Your task to perform on an android device: manage bookmarks in the chrome app Image 0: 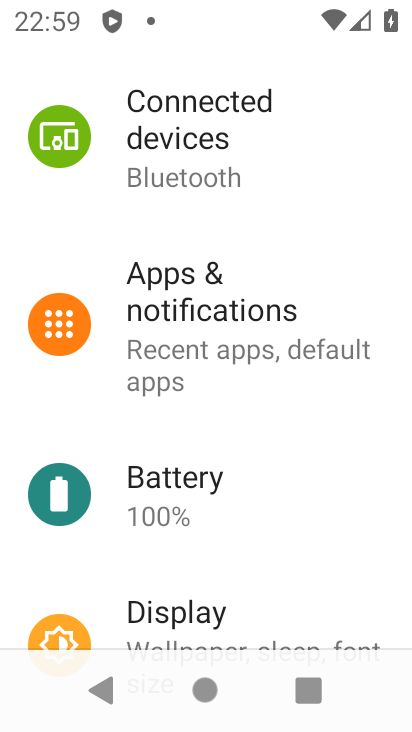
Step 0: drag from (250, 600) to (320, 723)
Your task to perform on an android device: manage bookmarks in the chrome app Image 1: 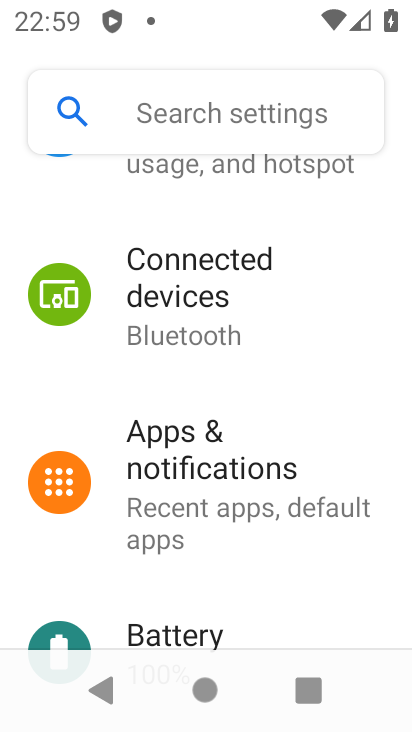
Step 1: press home button
Your task to perform on an android device: manage bookmarks in the chrome app Image 2: 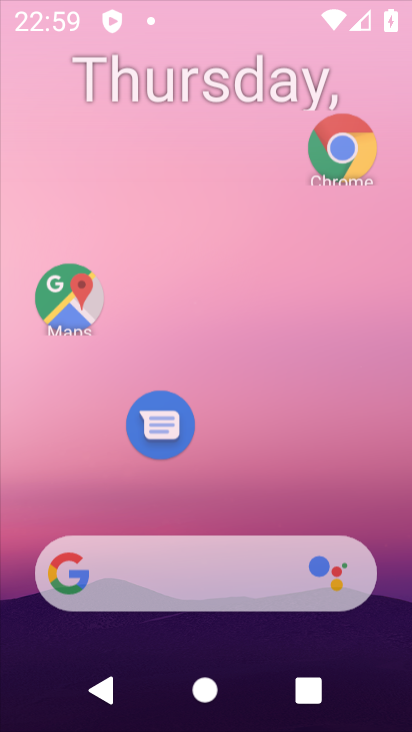
Step 2: drag from (202, 602) to (259, 129)
Your task to perform on an android device: manage bookmarks in the chrome app Image 3: 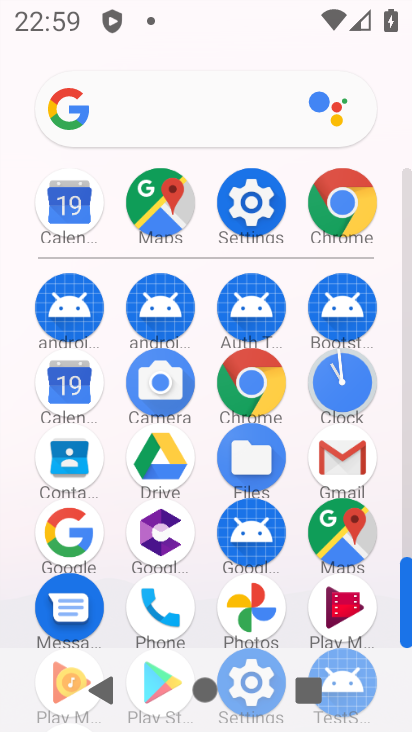
Step 3: click (248, 367)
Your task to perform on an android device: manage bookmarks in the chrome app Image 4: 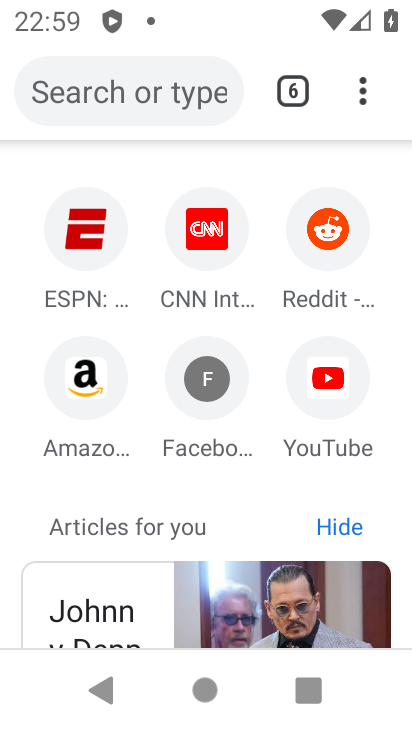
Step 4: click (370, 104)
Your task to perform on an android device: manage bookmarks in the chrome app Image 5: 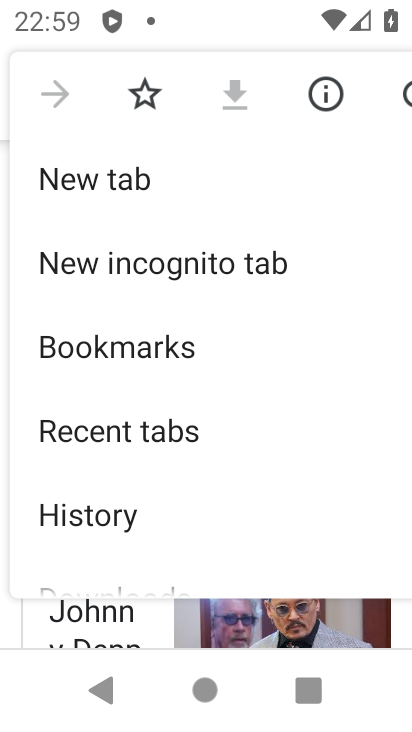
Step 5: drag from (189, 485) to (236, 135)
Your task to perform on an android device: manage bookmarks in the chrome app Image 6: 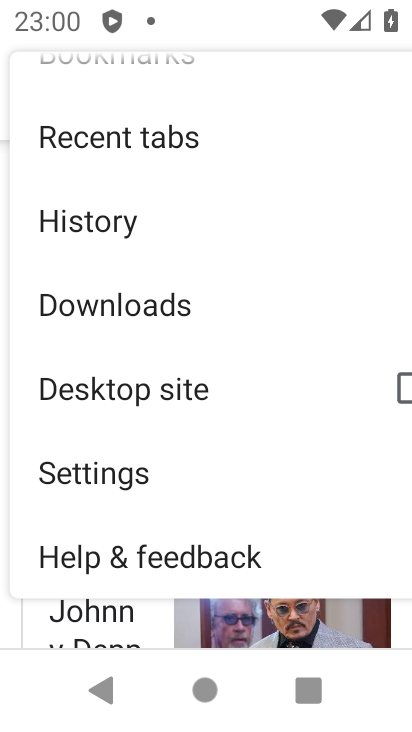
Step 6: drag from (196, 157) to (247, 544)
Your task to perform on an android device: manage bookmarks in the chrome app Image 7: 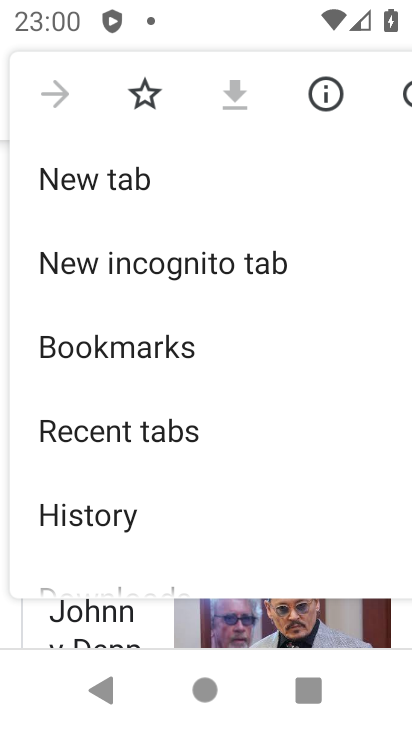
Step 7: click (157, 359)
Your task to perform on an android device: manage bookmarks in the chrome app Image 8: 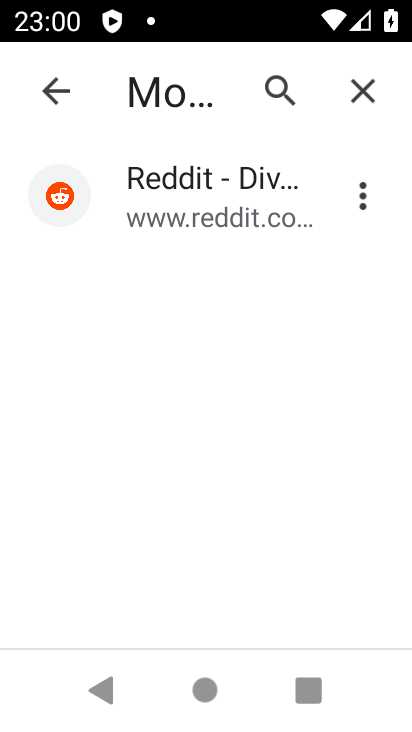
Step 8: drag from (248, 548) to (286, 115)
Your task to perform on an android device: manage bookmarks in the chrome app Image 9: 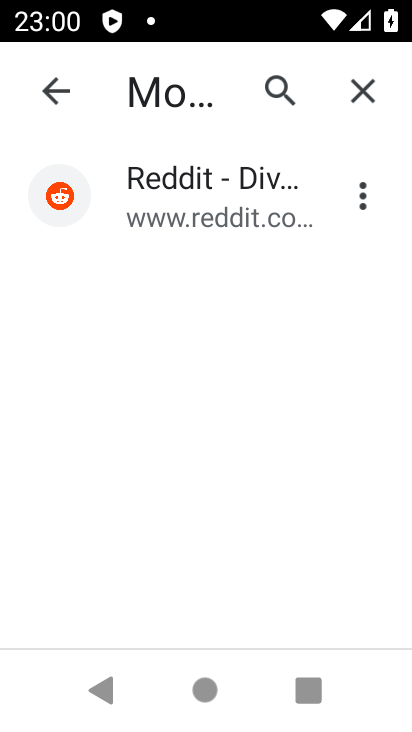
Step 9: drag from (211, 518) to (260, 194)
Your task to perform on an android device: manage bookmarks in the chrome app Image 10: 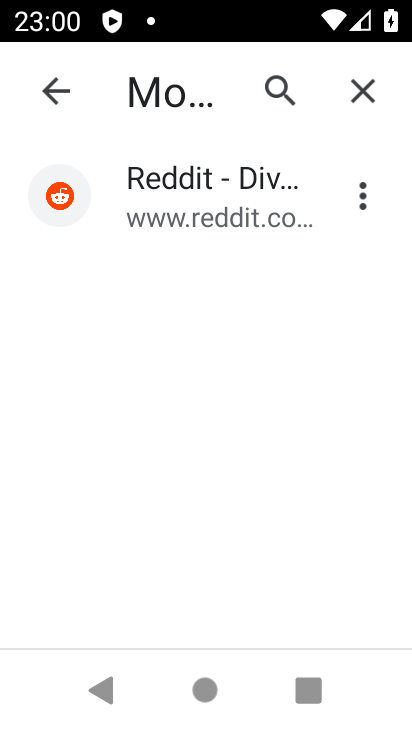
Step 10: drag from (244, 481) to (274, 188)
Your task to perform on an android device: manage bookmarks in the chrome app Image 11: 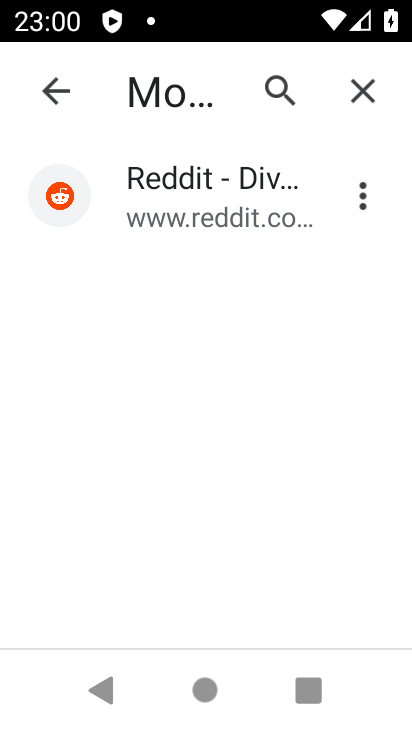
Step 11: drag from (245, 478) to (261, 55)
Your task to perform on an android device: manage bookmarks in the chrome app Image 12: 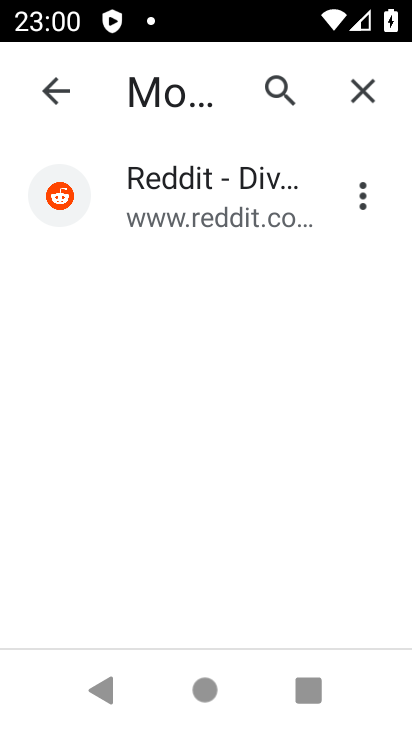
Step 12: click (367, 208)
Your task to perform on an android device: manage bookmarks in the chrome app Image 13: 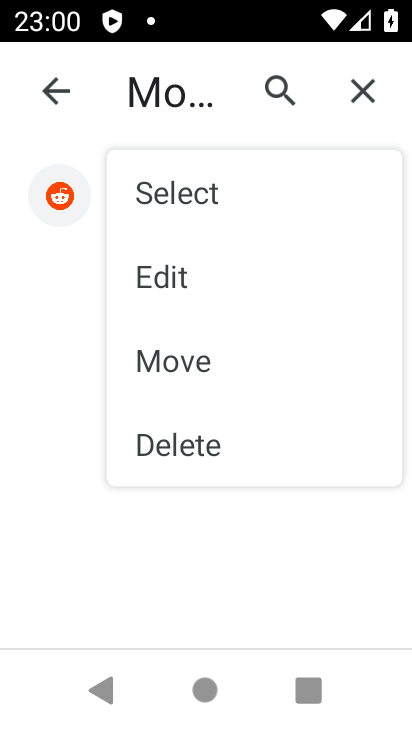
Step 13: click (225, 371)
Your task to perform on an android device: manage bookmarks in the chrome app Image 14: 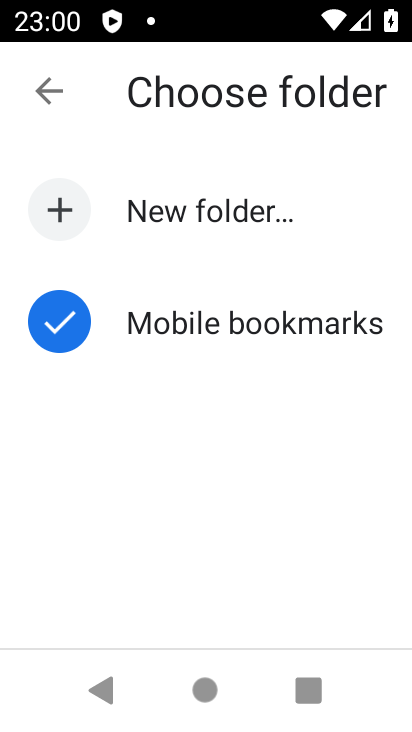
Step 14: task complete